Your task to perform on an android device: Go to eBay Image 0: 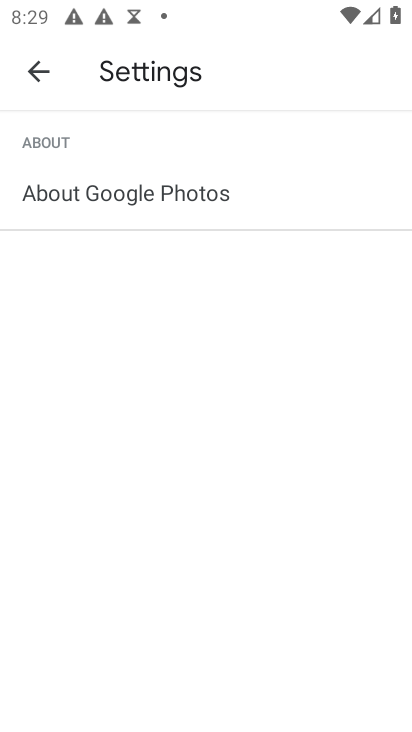
Step 0: press home button
Your task to perform on an android device: Go to eBay Image 1: 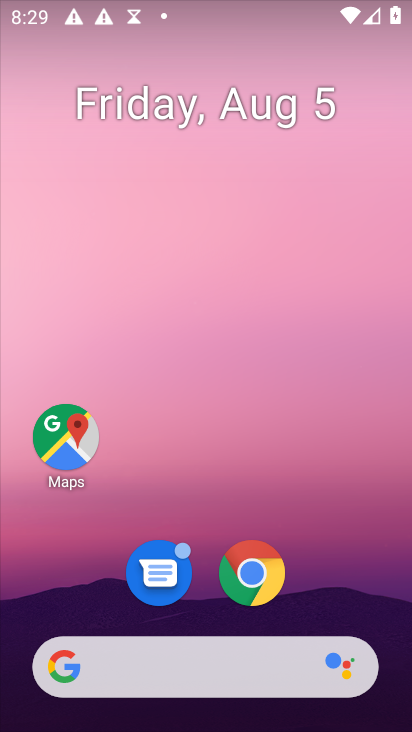
Step 1: click (250, 575)
Your task to perform on an android device: Go to eBay Image 2: 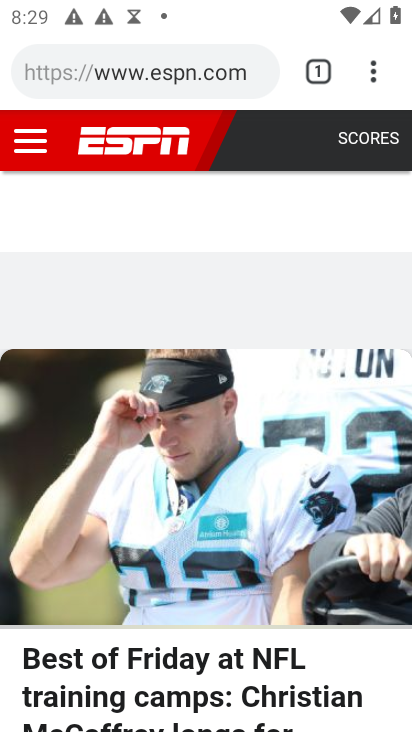
Step 2: click (263, 78)
Your task to perform on an android device: Go to eBay Image 3: 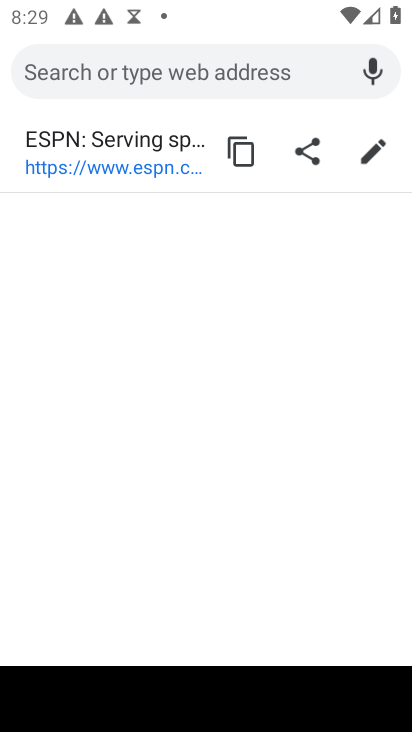
Step 3: type "eBay"
Your task to perform on an android device: Go to eBay Image 4: 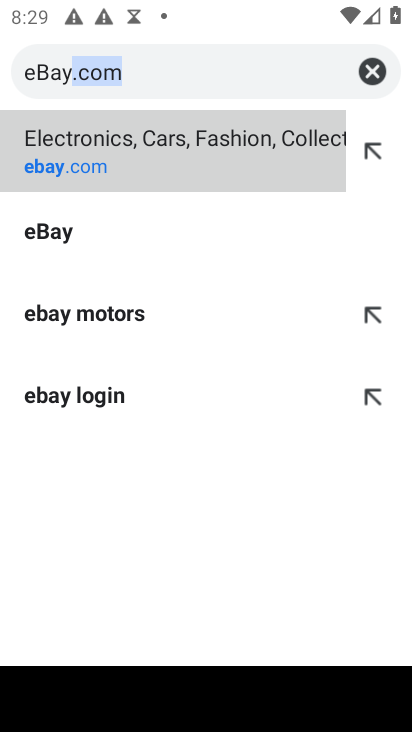
Step 4: click (54, 241)
Your task to perform on an android device: Go to eBay Image 5: 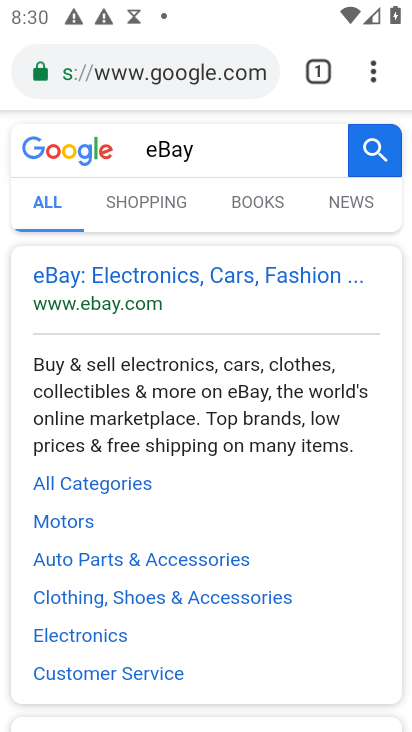
Step 5: click (114, 274)
Your task to perform on an android device: Go to eBay Image 6: 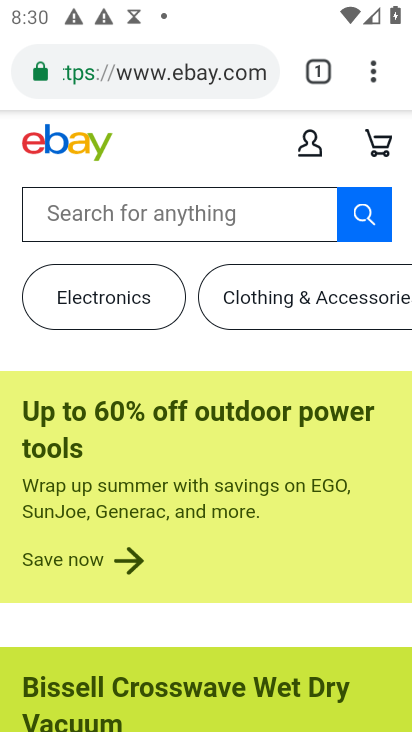
Step 6: task complete